Your task to perform on an android device: uninstall "YouTube Kids" Image 0: 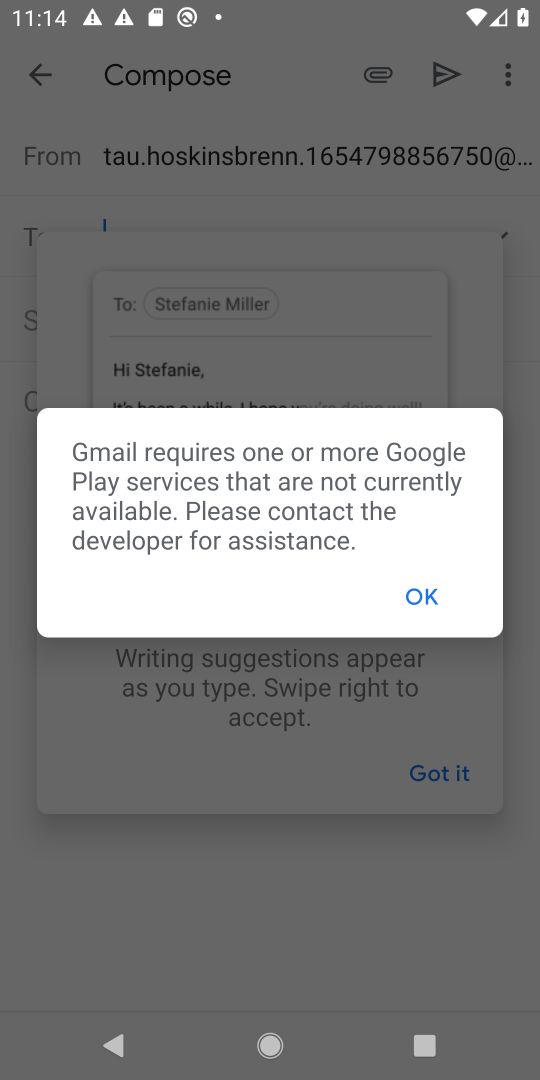
Step 0: click (431, 634)
Your task to perform on an android device: uninstall "YouTube Kids" Image 1: 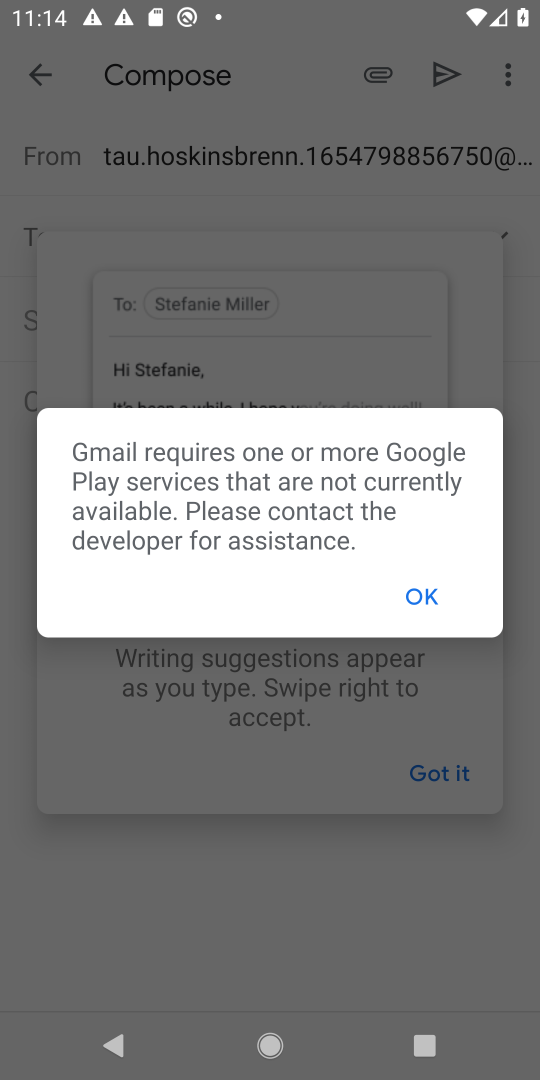
Step 1: click (428, 617)
Your task to perform on an android device: uninstall "YouTube Kids" Image 2: 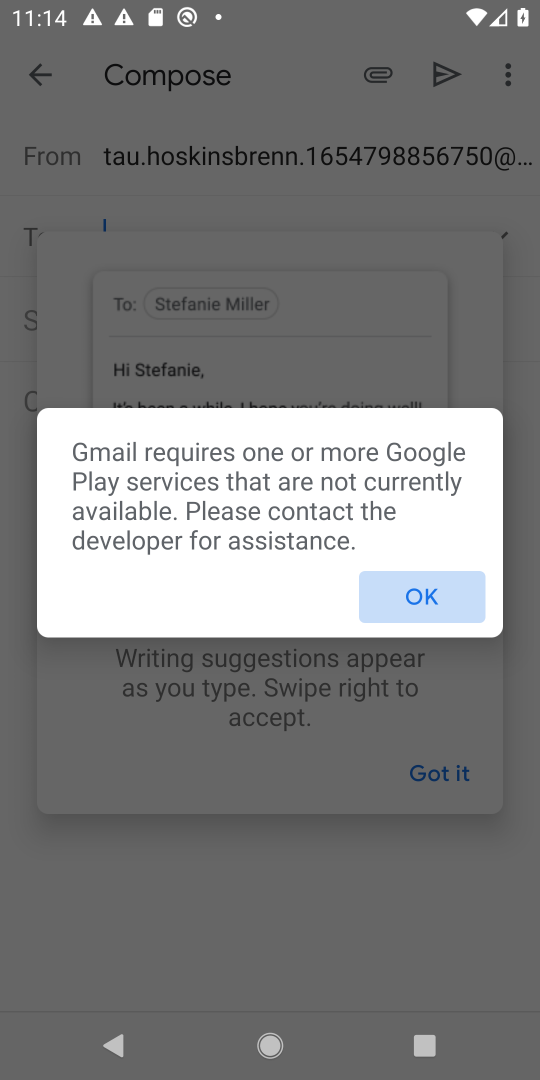
Step 2: press home button
Your task to perform on an android device: uninstall "YouTube Kids" Image 3: 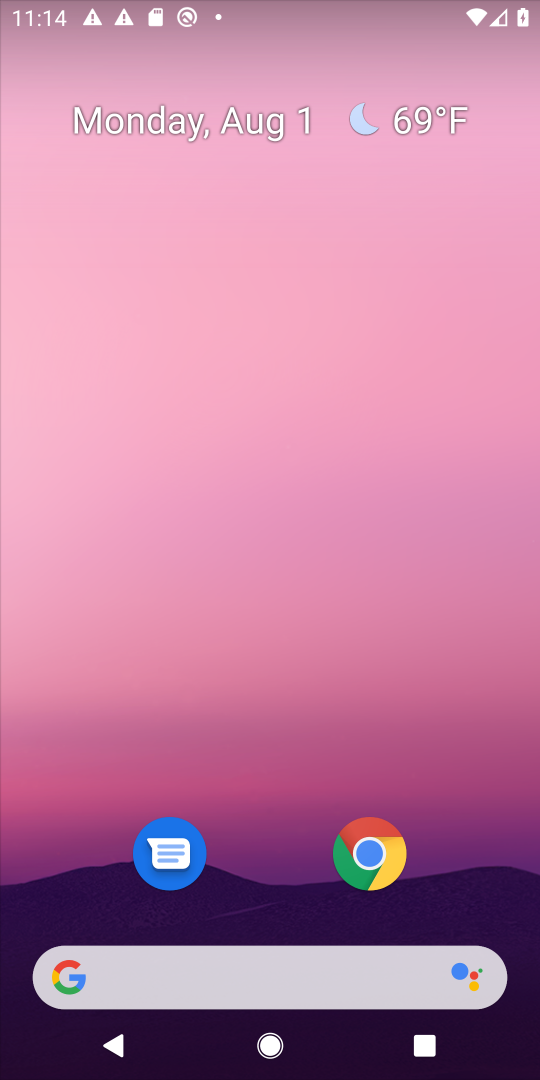
Step 3: drag from (280, 891) to (163, 1034)
Your task to perform on an android device: uninstall "YouTube Kids" Image 4: 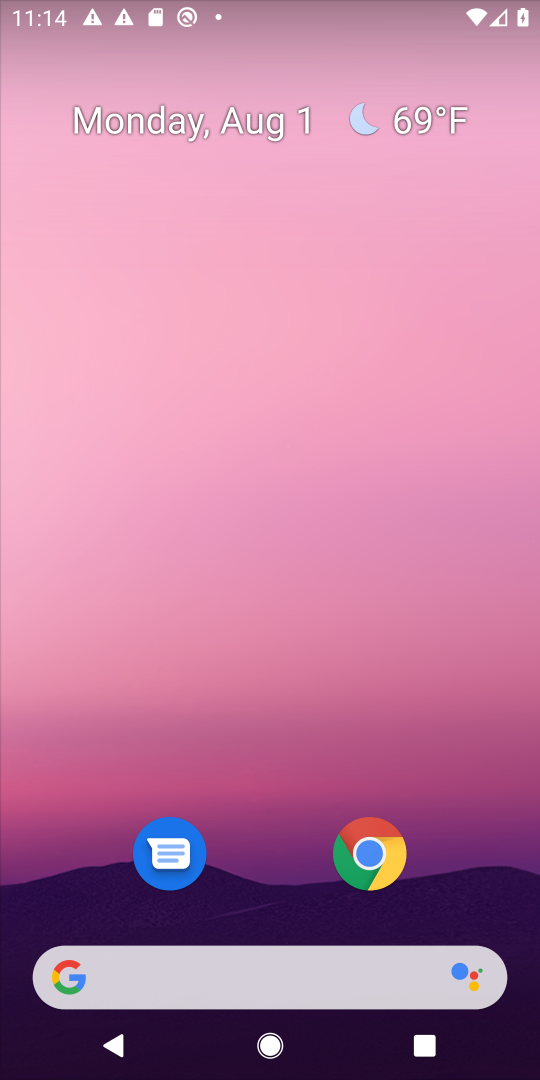
Step 4: click (253, 217)
Your task to perform on an android device: uninstall "YouTube Kids" Image 5: 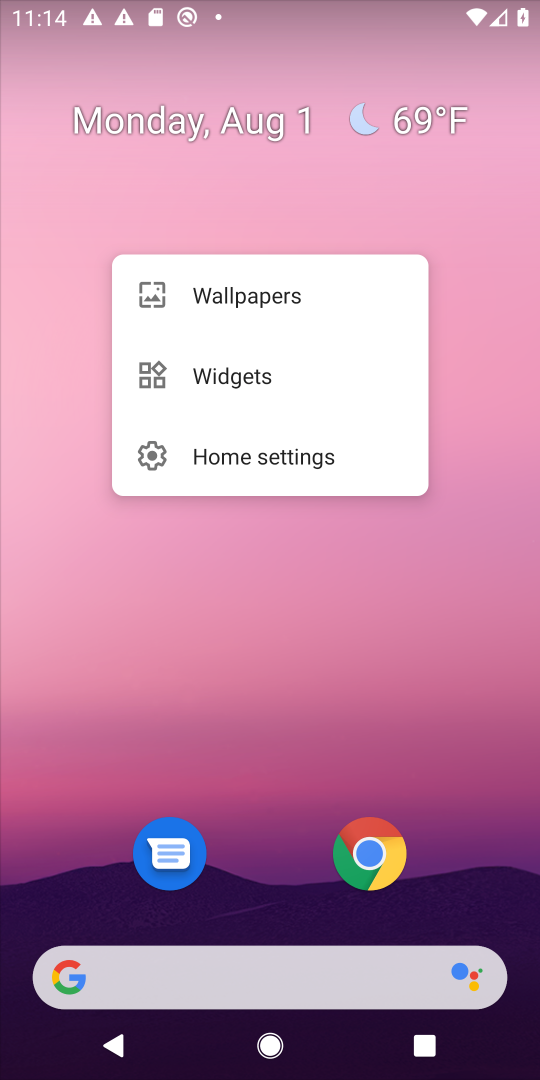
Step 5: drag from (281, 847) to (328, 214)
Your task to perform on an android device: uninstall "YouTube Kids" Image 6: 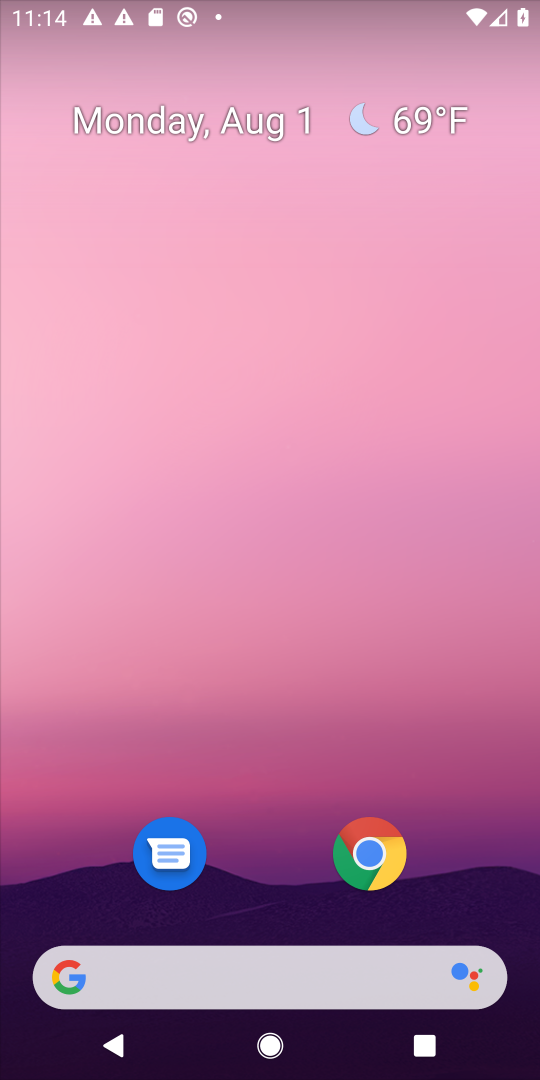
Step 6: drag from (290, 639) to (511, 41)
Your task to perform on an android device: uninstall "YouTube Kids" Image 7: 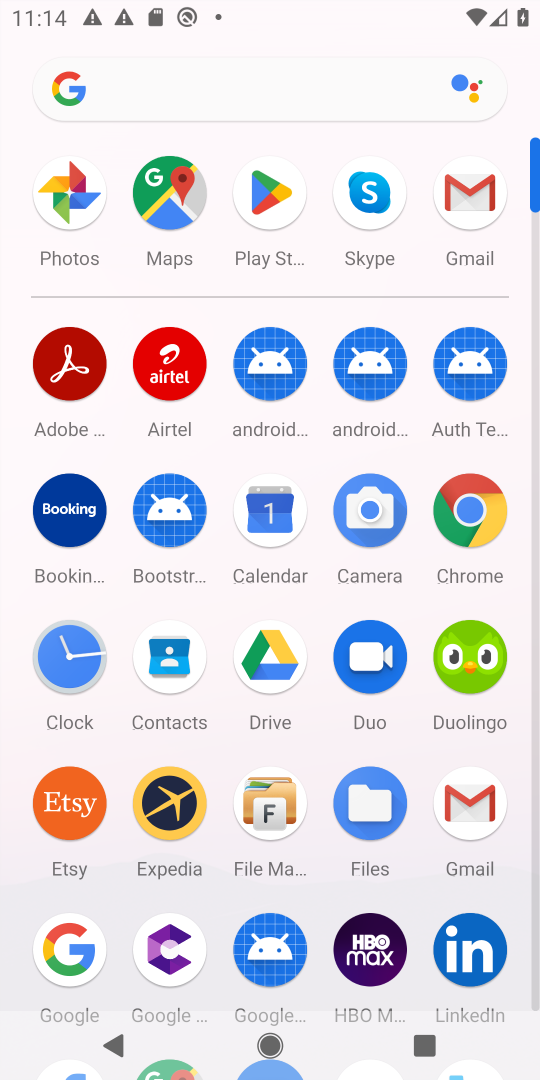
Step 7: click (260, 187)
Your task to perform on an android device: uninstall "YouTube Kids" Image 8: 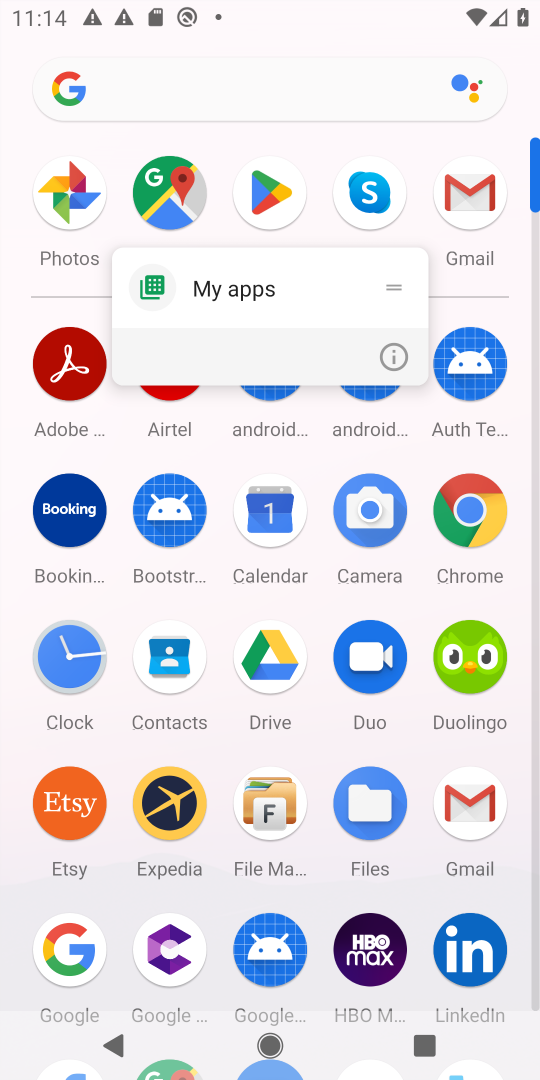
Step 8: click (397, 352)
Your task to perform on an android device: uninstall "YouTube Kids" Image 9: 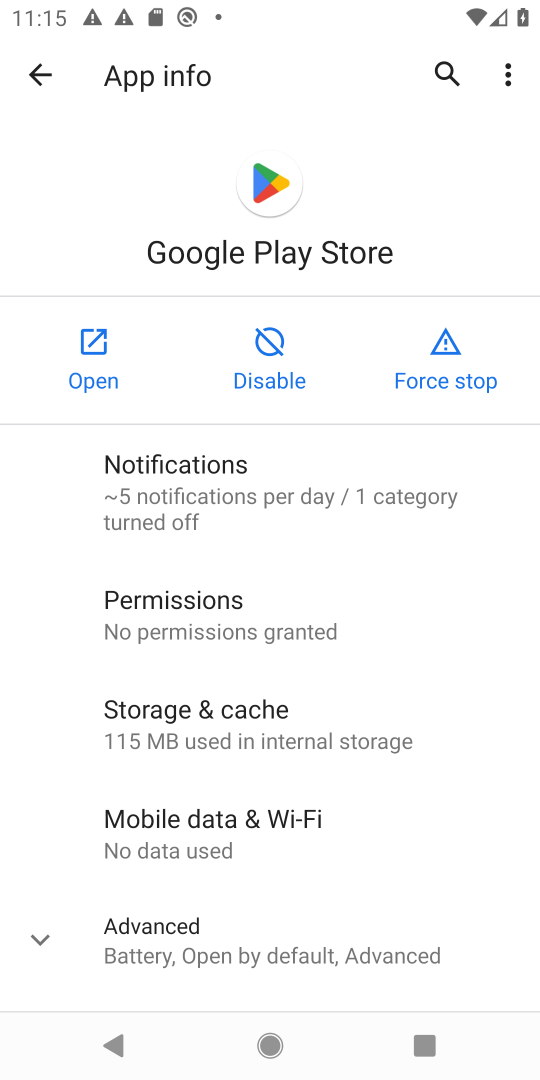
Step 9: click (80, 339)
Your task to perform on an android device: uninstall "YouTube Kids" Image 10: 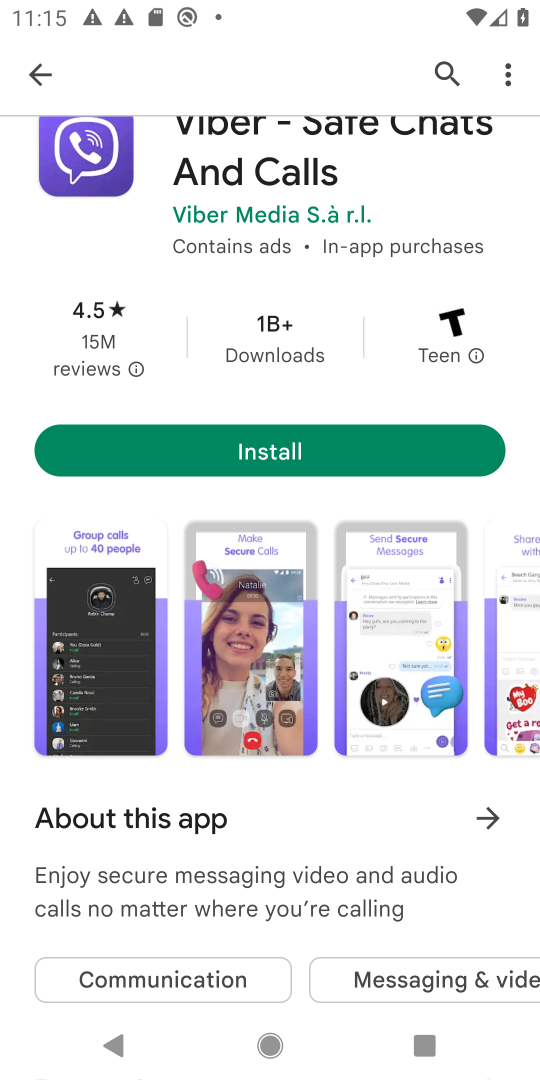
Step 10: drag from (334, 206) to (313, 993)
Your task to perform on an android device: uninstall "YouTube Kids" Image 11: 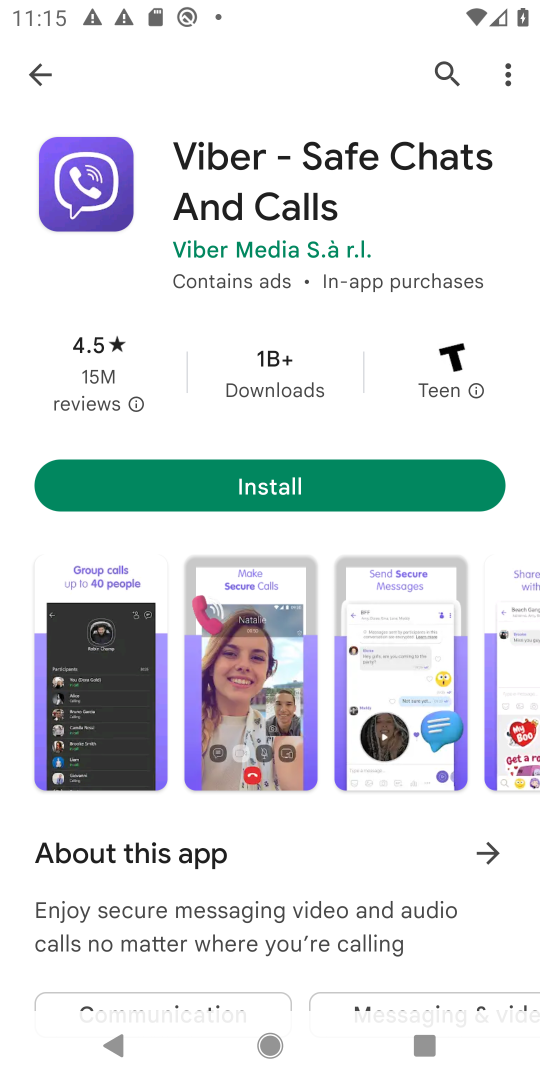
Step 11: click (450, 61)
Your task to perform on an android device: uninstall "YouTube Kids" Image 12: 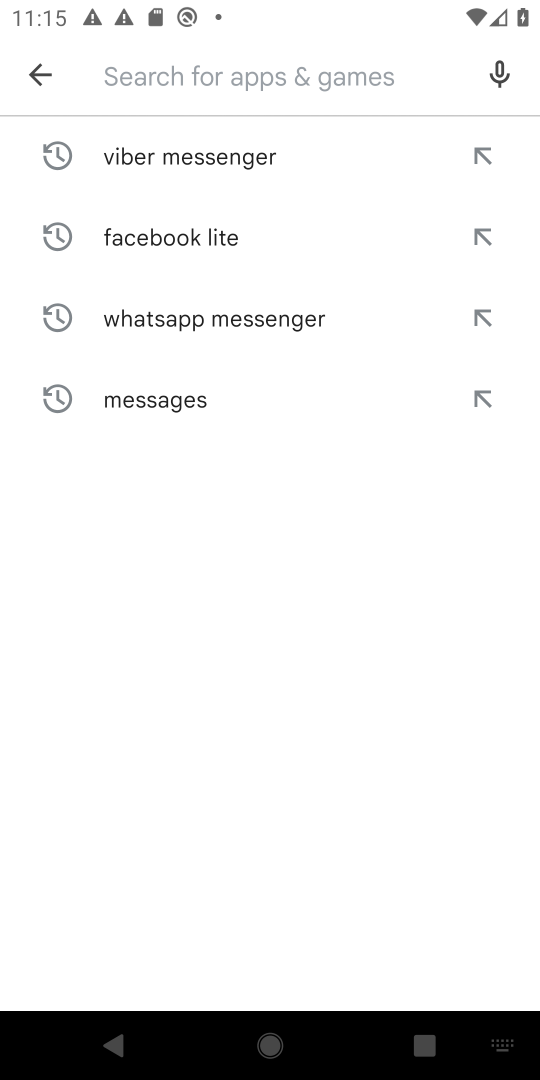
Step 12: type "YouTube Kids"
Your task to perform on an android device: uninstall "YouTube Kids" Image 13: 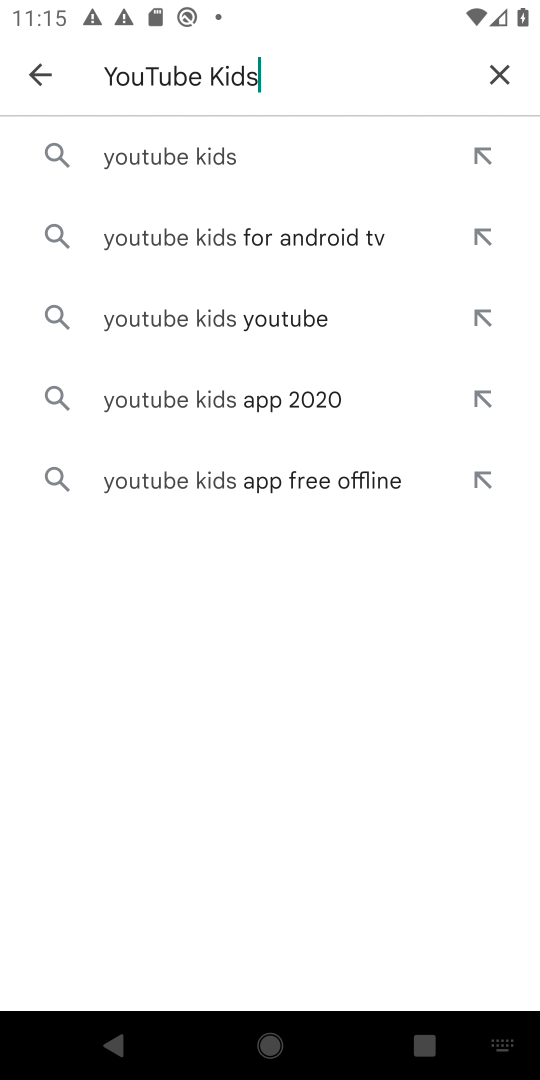
Step 13: click (139, 137)
Your task to perform on an android device: uninstall "YouTube Kids" Image 14: 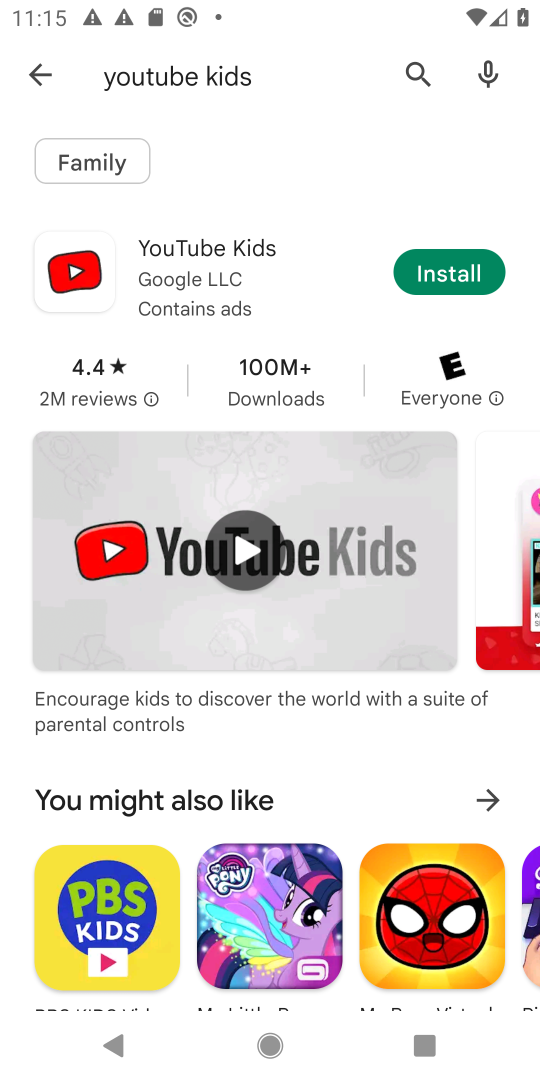
Step 14: click (190, 247)
Your task to perform on an android device: uninstall "YouTube Kids" Image 15: 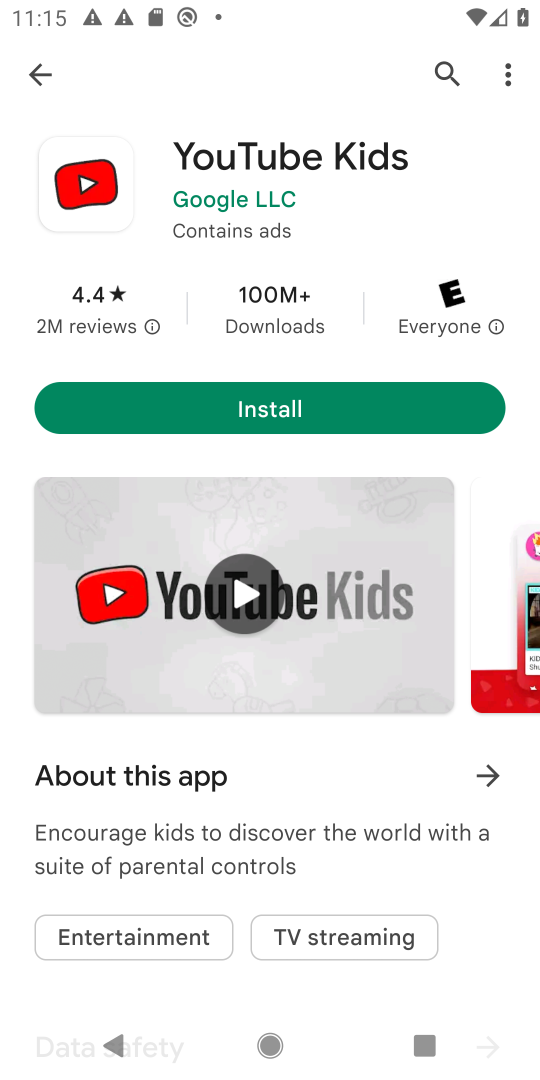
Step 15: task complete